Your task to perform on an android device: toggle airplane mode Image 0: 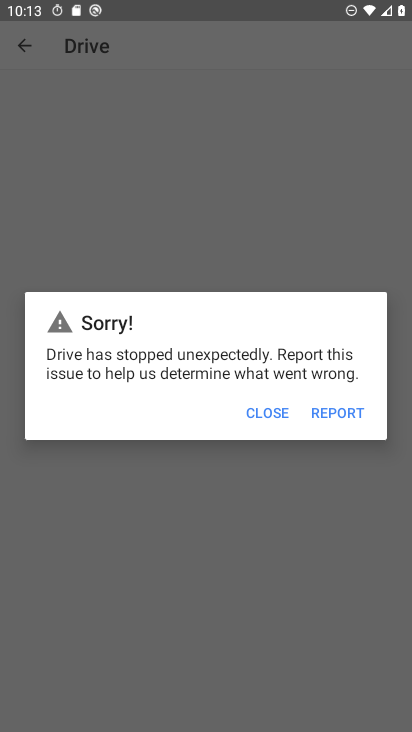
Step 0: press home button
Your task to perform on an android device: toggle airplane mode Image 1: 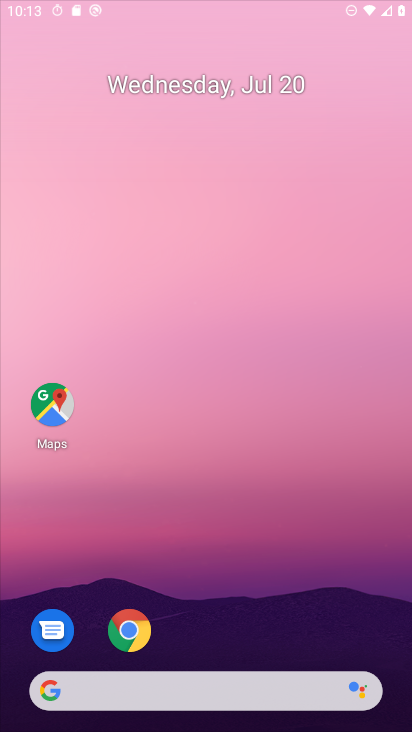
Step 1: drag from (230, 675) to (176, 123)
Your task to perform on an android device: toggle airplane mode Image 2: 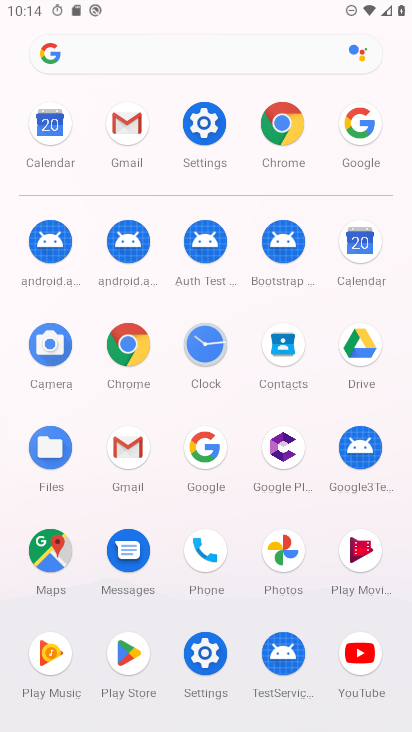
Step 2: click (203, 156)
Your task to perform on an android device: toggle airplane mode Image 3: 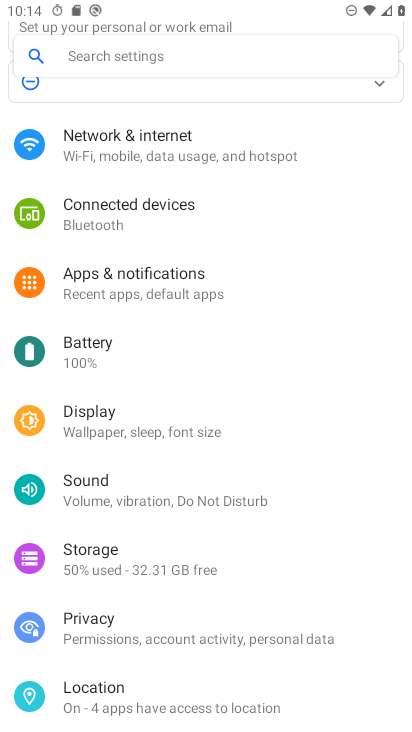
Step 3: click (176, 145)
Your task to perform on an android device: toggle airplane mode Image 4: 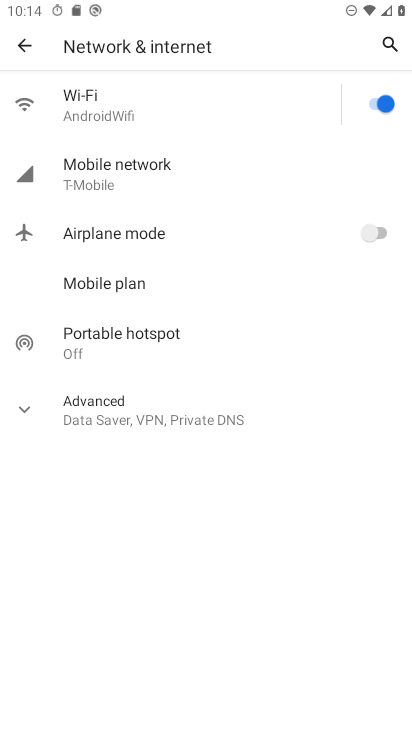
Step 4: click (211, 229)
Your task to perform on an android device: toggle airplane mode Image 5: 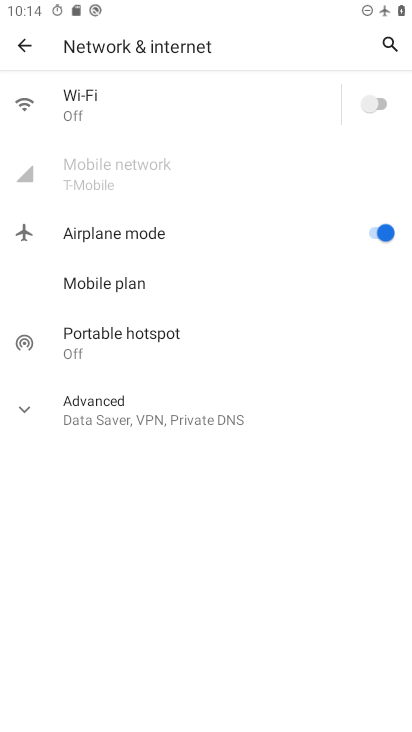
Step 5: task complete